Your task to perform on an android device: toggle show notifications on the lock screen Image 0: 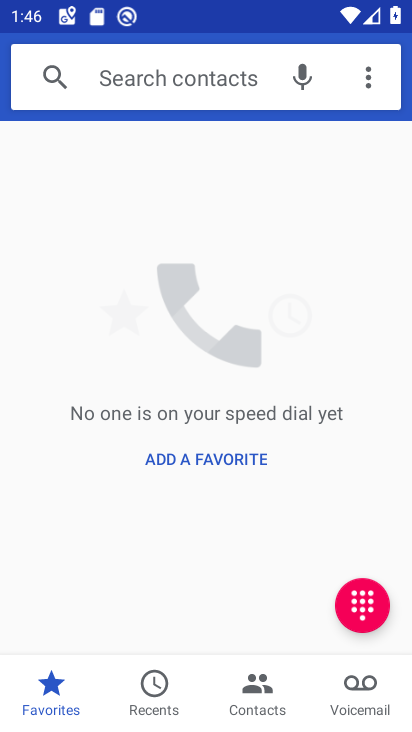
Step 0: press home button
Your task to perform on an android device: toggle show notifications on the lock screen Image 1: 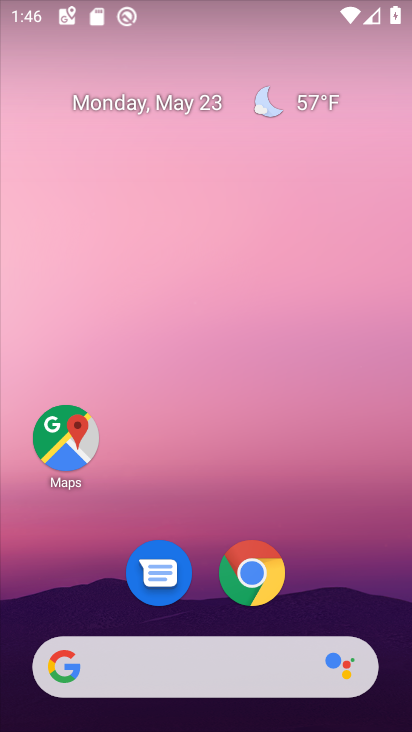
Step 1: drag from (338, 592) to (255, 0)
Your task to perform on an android device: toggle show notifications on the lock screen Image 2: 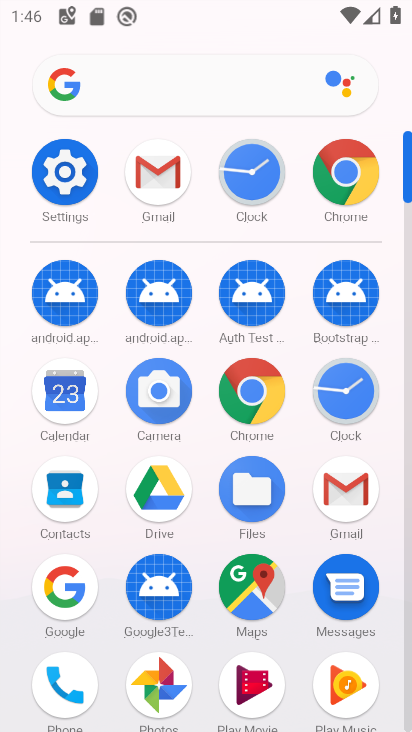
Step 2: click (75, 194)
Your task to perform on an android device: toggle show notifications on the lock screen Image 3: 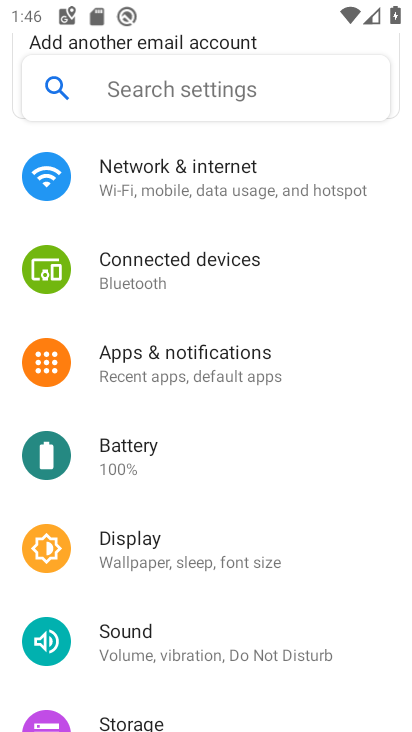
Step 3: drag from (213, 272) to (169, 502)
Your task to perform on an android device: toggle show notifications on the lock screen Image 4: 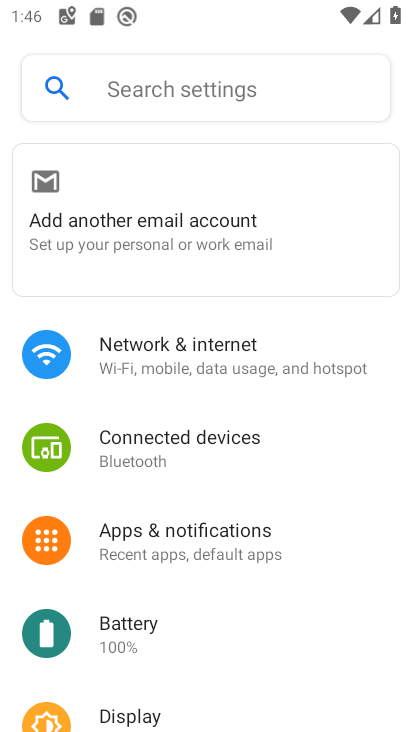
Step 4: drag from (251, 542) to (242, 299)
Your task to perform on an android device: toggle show notifications on the lock screen Image 5: 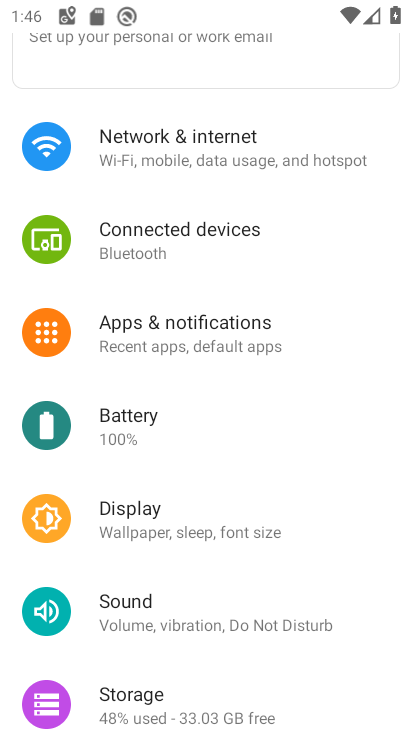
Step 5: drag from (217, 618) to (241, 434)
Your task to perform on an android device: toggle show notifications on the lock screen Image 6: 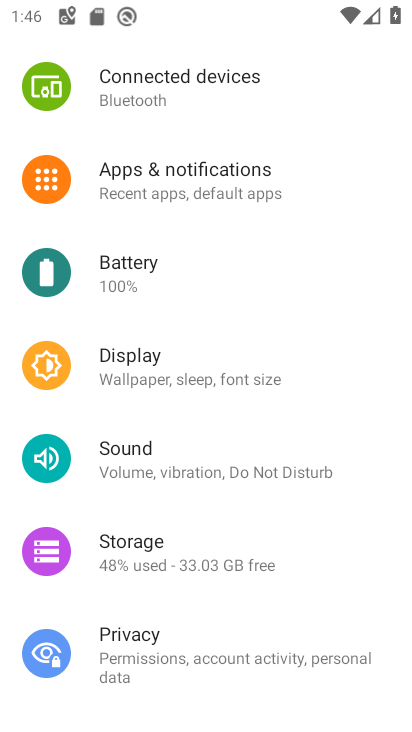
Step 6: drag from (257, 566) to (275, 294)
Your task to perform on an android device: toggle show notifications on the lock screen Image 7: 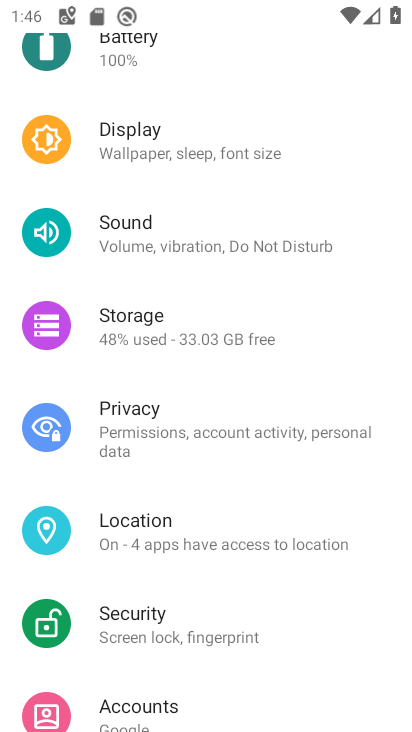
Step 7: drag from (175, 542) to (175, 223)
Your task to perform on an android device: toggle show notifications on the lock screen Image 8: 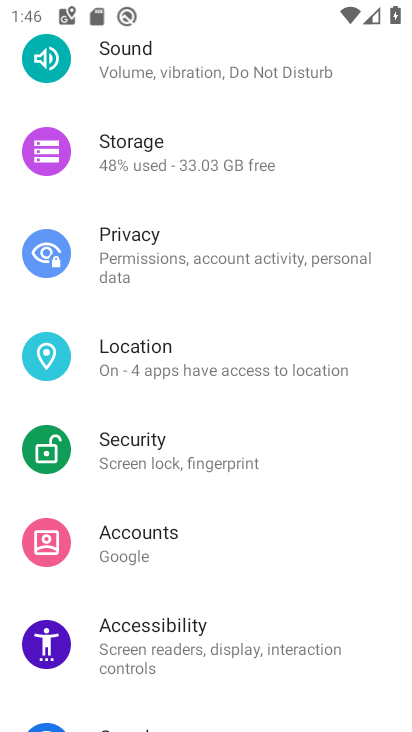
Step 8: drag from (101, 600) to (112, 195)
Your task to perform on an android device: toggle show notifications on the lock screen Image 9: 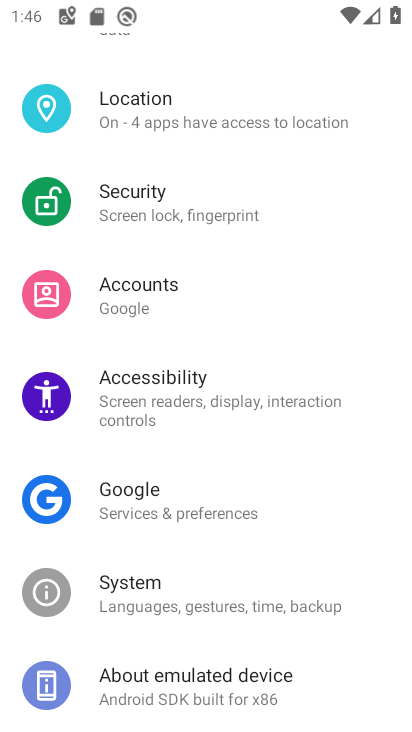
Step 9: drag from (161, 492) to (169, 150)
Your task to perform on an android device: toggle show notifications on the lock screen Image 10: 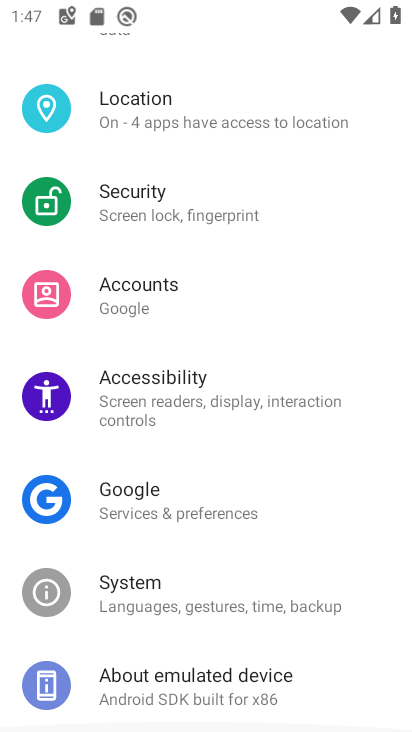
Step 10: drag from (171, 147) to (181, 674)
Your task to perform on an android device: toggle show notifications on the lock screen Image 11: 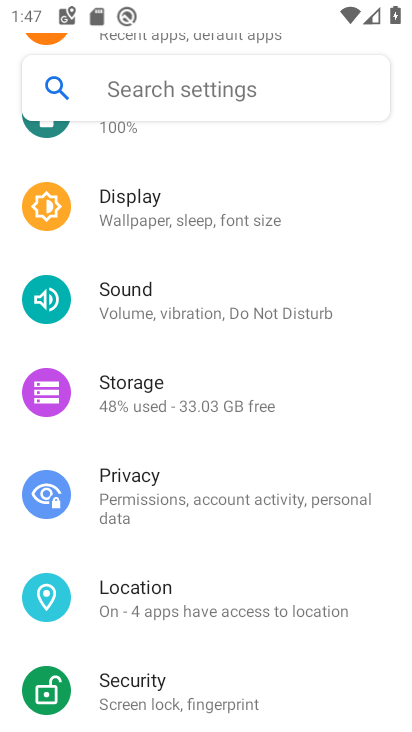
Step 11: click (182, 229)
Your task to perform on an android device: toggle show notifications on the lock screen Image 12: 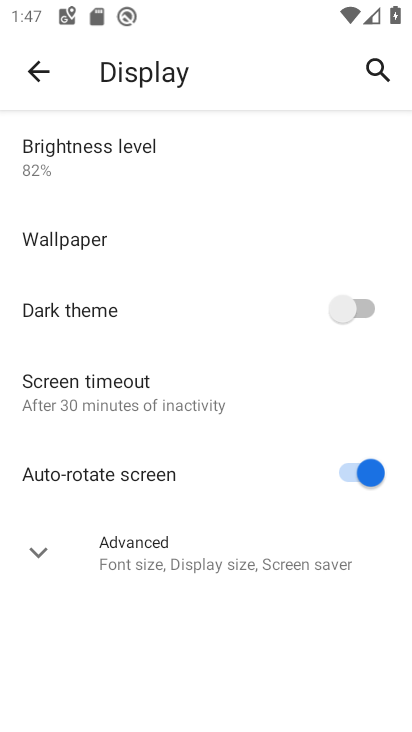
Step 12: click (58, 562)
Your task to perform on an android device: toggle show notifications on the lock screen Image 13: 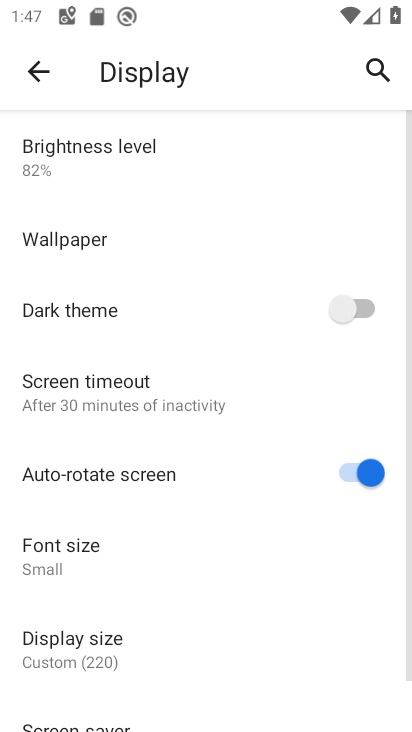
Step 13: drag from (222, 485) to (223, 240)
Your task to perform on an android device: toggle show notifications on the lock screen Image 14: 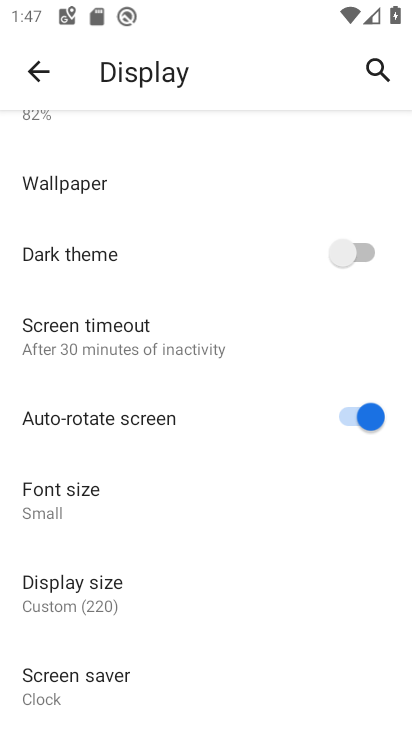
Step 14: drag from (179, 542) to (179, 339)
Your task to perform on an android device: toggle show notifications on the lock screen Image 15: 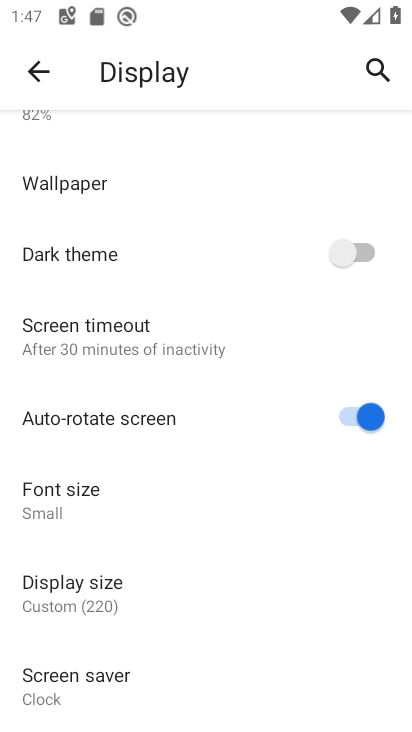
Step 15: press back button
Your task to perform on an android device: toggle show notifications on the lock screen Image 16: 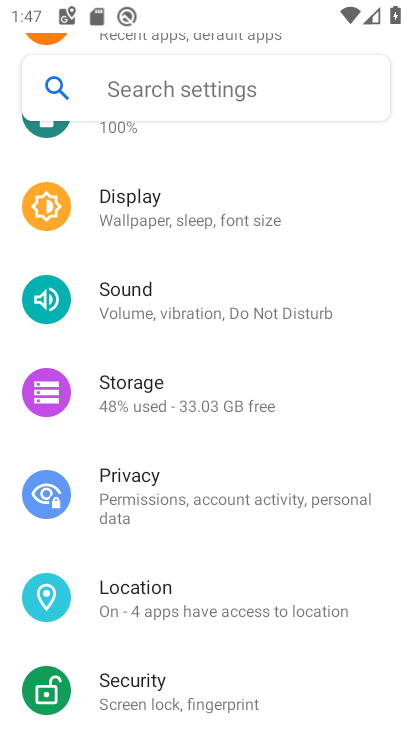
Step 16: drag from (238, 311) to (218, 656)
Your task to perform on an android device: toggle show notifications on the lock screen Image 17: 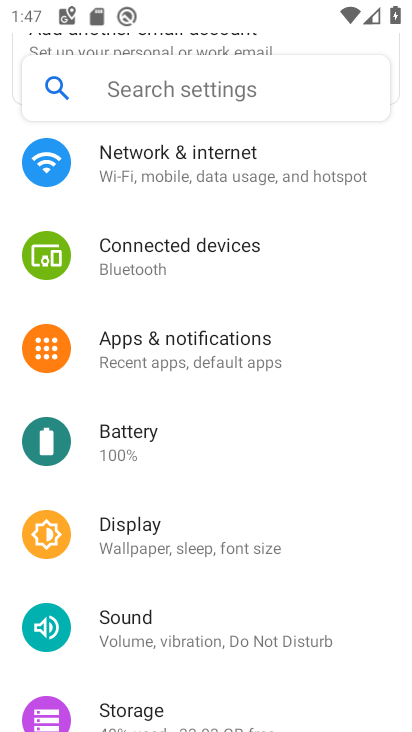
Step 17: click (136, 352)
Your task to perform on an android device: toggle show notifications on the lock screen Image 18: 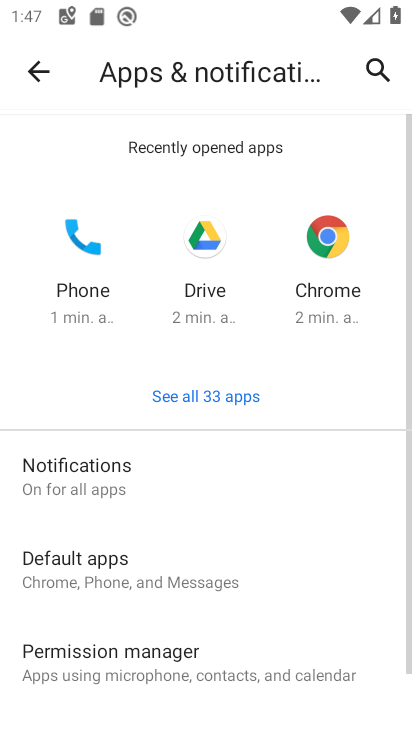
Step 18: drag from (214, 552) to (230, 125)
Your task to perform on an android device: toggle show notifications on the lock screen Image 19: 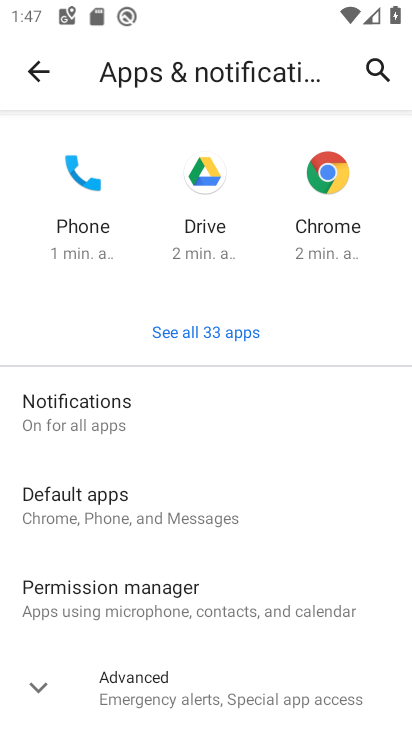
Step 19: click (198, 687)
Your task to perform on an android device: toggle show notifications on the lock screen Image 20: 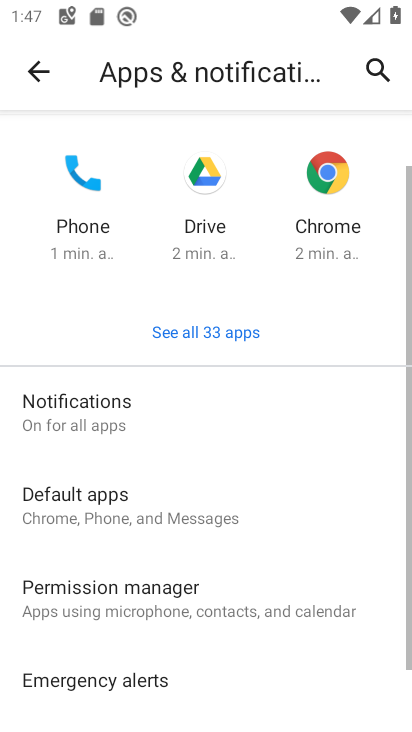
Step 20: drag from (201, 598) to (208, 230)
Your task to perform on an android device: toggle show notifications on the lock screen Image 21: 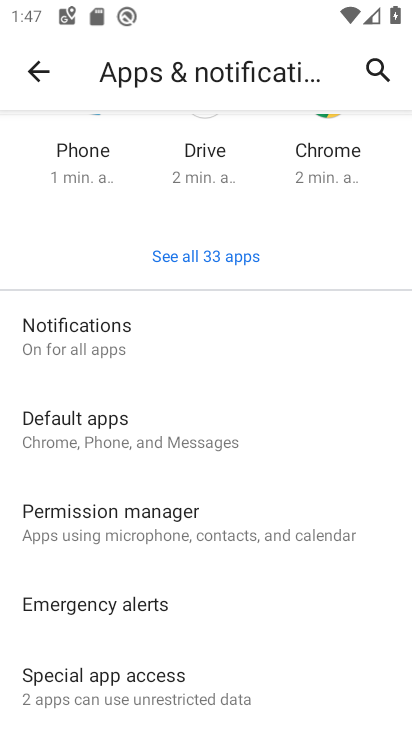
Step 21: drag from (239, 642) to (224, 289)
Your task to perform on an android device: toggle show notifications on the lock screen Image 22: 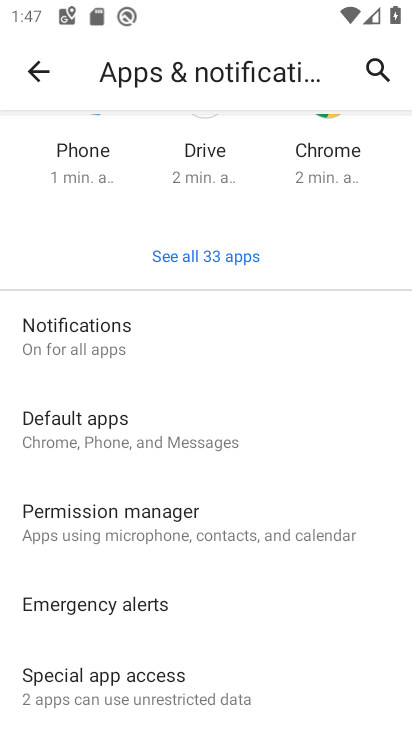
Step 22: press back button
Your task to perform on an android device: toggle show notifications on the lock screen Image 23: 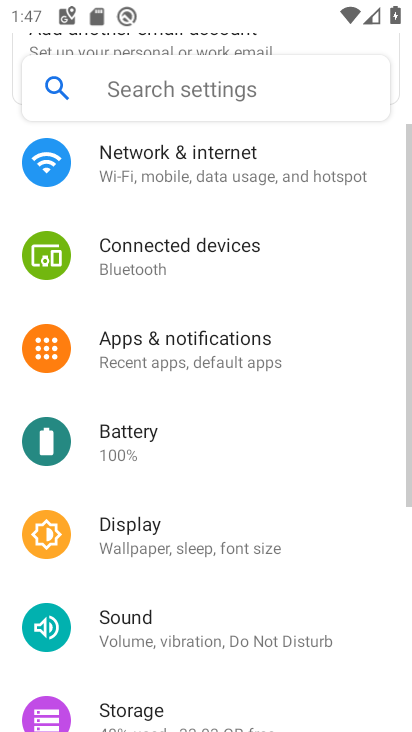
Step 23: drag from (205, 657) to (207, 289)
Your task to perform on an android device: toggle show notifications on the lock screen Image 24: 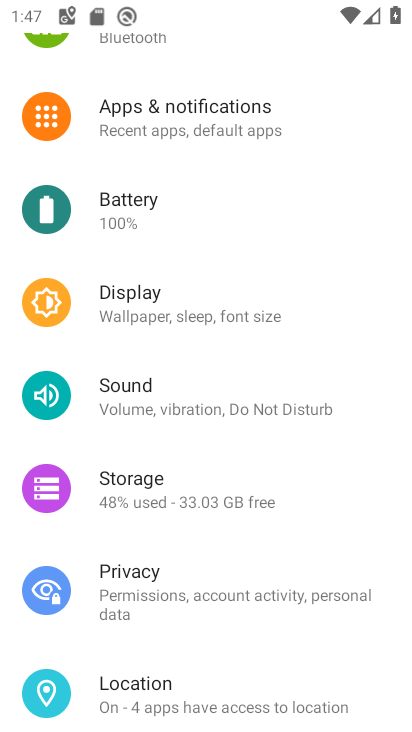
Step 24: drag from (119, 640) to (148, 200)
Your task to perform on an android device: toggle show notifications on the lock screen Image 25: 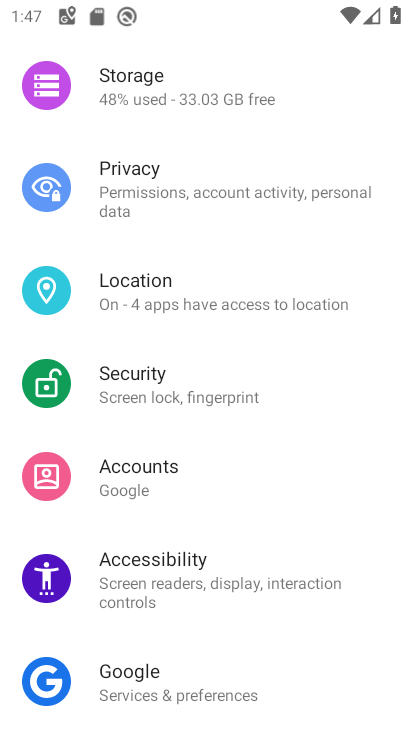
Step 25: drag from (78, 620) to (144, 244)
Your task to perform on an android device: toggle show notifications on the lock screen Image 26: 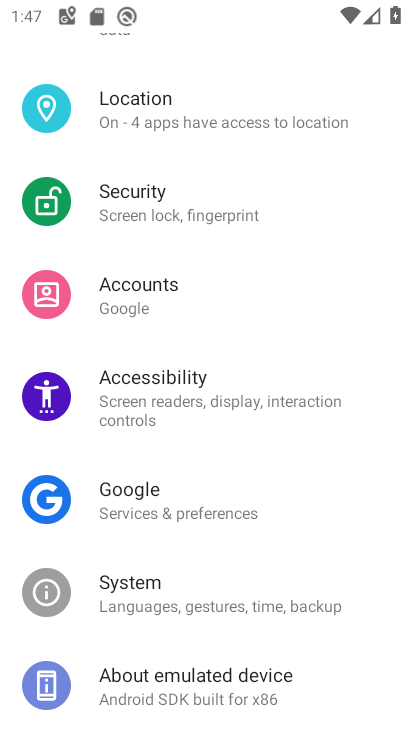
Step 26: click (270, 689)
Your task to perform on an android device: toggle show notifications on the lock screen Image 27: 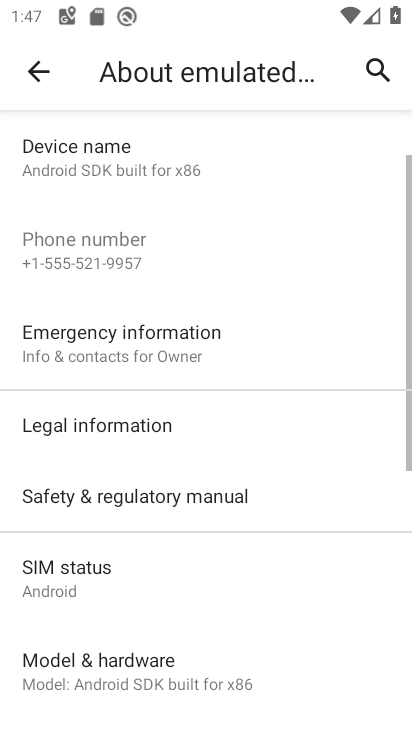
Step 27: drag from (155, 612) to (166, 249)
Your task to perform on an android device: toggle show notifications on the lock screen Image 28: 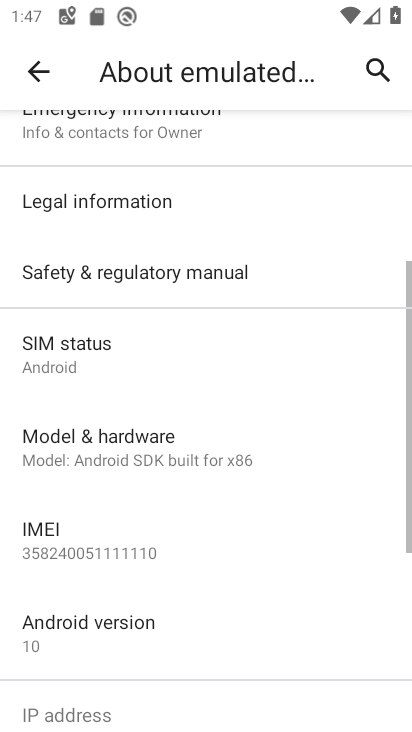
Step 28: drag from (93, 533) to (140, 215)
Your task to perform on an android device: toggle show notifications on the lock screen Image 29: 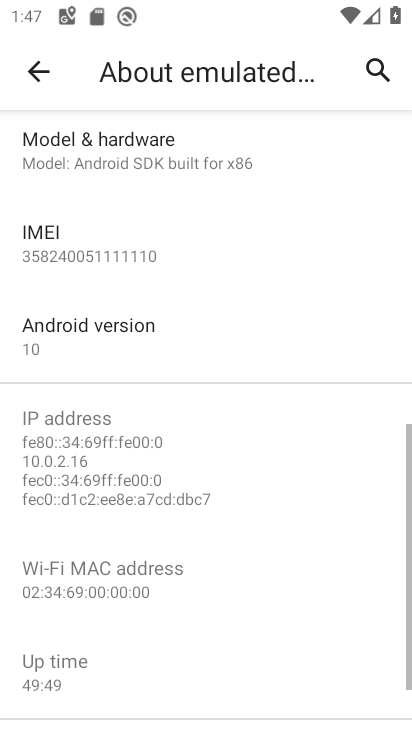
Step 29: drag from (181, 536) to (181, 41)
Your task to perform on an android device: toggle show notifications on the lock screen Image 30: 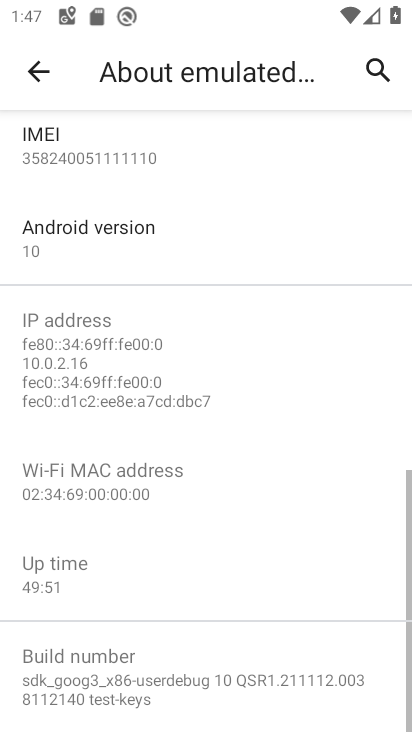
Step 30: drag from (255, 242) to (232, 683)
Your task to perform on an android device: toggle show notifications on the lock screen Image 31: 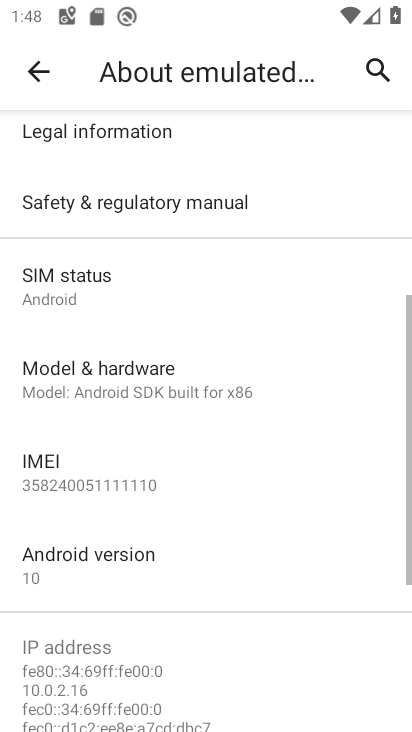
Step 31: drag from (217, 353) to (243, 685)
Your task to perform on an android device: toggle show notifications on the lock screen Image 32: 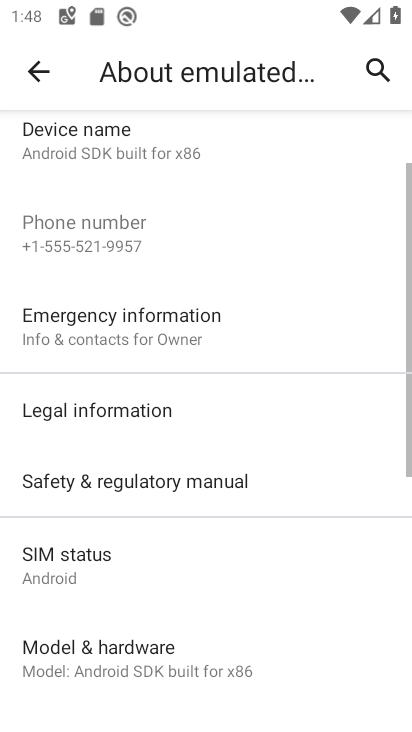
Step 32: drag from (234, 320) to (189, 703)
Your task to perform on an android device: toggle show notifications on the lock screen Image 33: 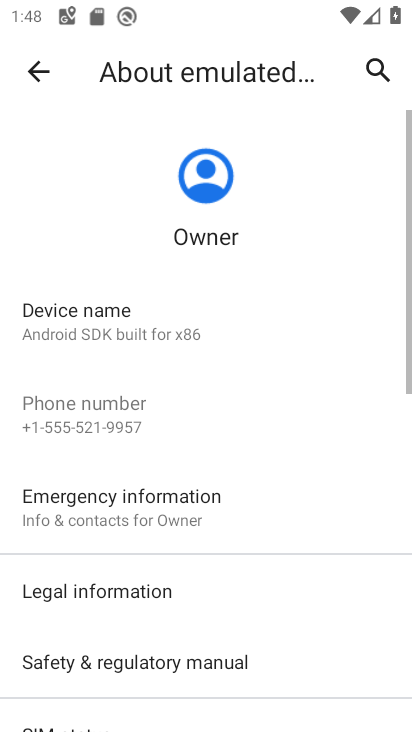
Step 33: press back button
Your task to perform on an android device: toggle show notifications on the lock screen Image 34: 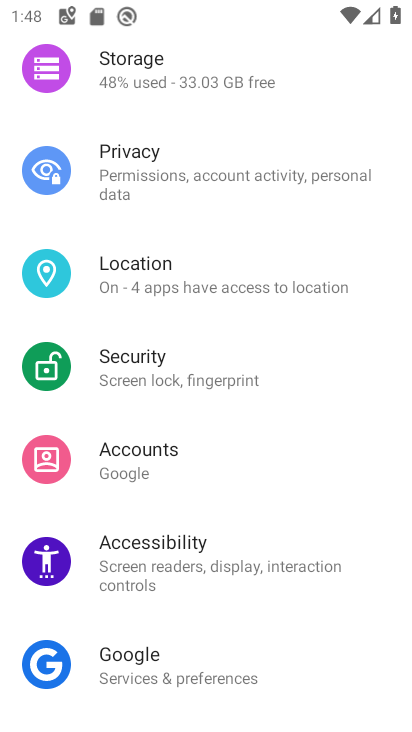
Step 34: drag from (227, 270) to (103, 634)
Your task to perform on an android device: toggle show notifications on the lock screen Image 35: 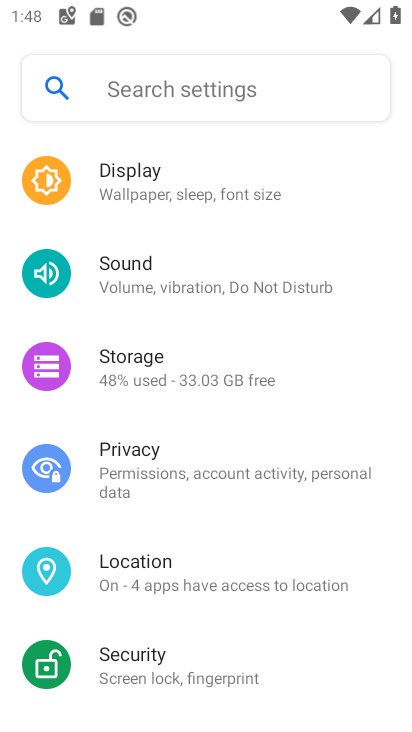
Step 35: drag from (120, 191) to (172, 549)
Your task to perform on an android device: toggle show notifications on the lock screen Image 36: 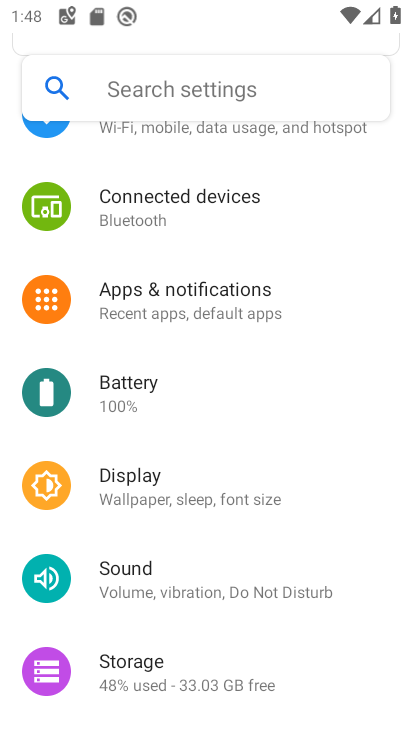
Step 36: drag from (212, 252) to (250, 669)
Your task to perform on an android device: toggle show notifications on the lock screen Image 37: 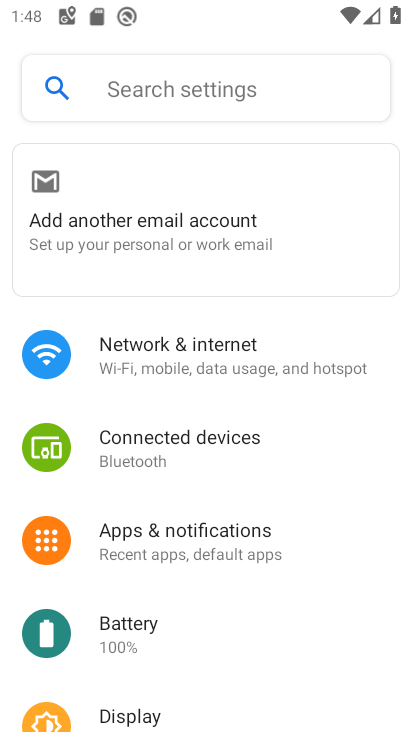
Step 37: drag from (252, 580) to (254, 203)
Your task to perform on an android device: toggle show notifications on the lock screen Image 38: 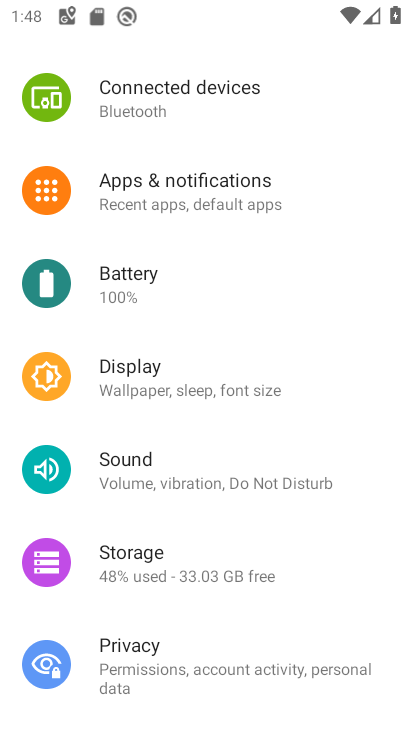
Step 38: click (221, 384)
Your task to perform on an android device: toggle show notifications on the lock screen Image 39: 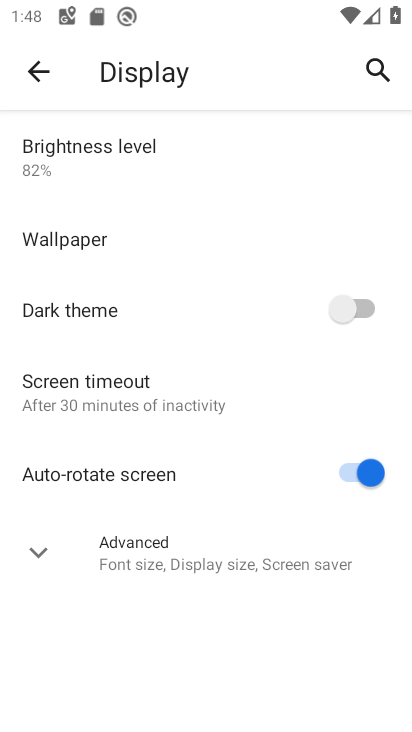
Step 39: press back button
Your task to perform on an android device: toggle show notifications on the lock screen Image 40: 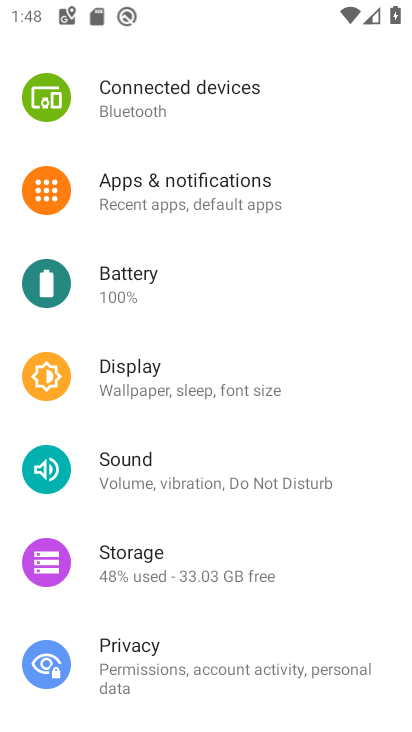
Step 40: click (99, 233)
Your task to perform on an android device: toggle show notifications on the lock screen Image 41: 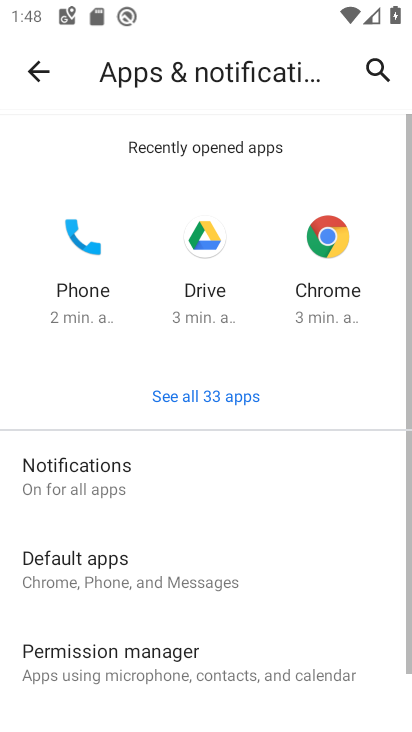
Step 41: click (132, 179)
Your task to perform on an android device: toggle show notifications on the lock screen Image 42: 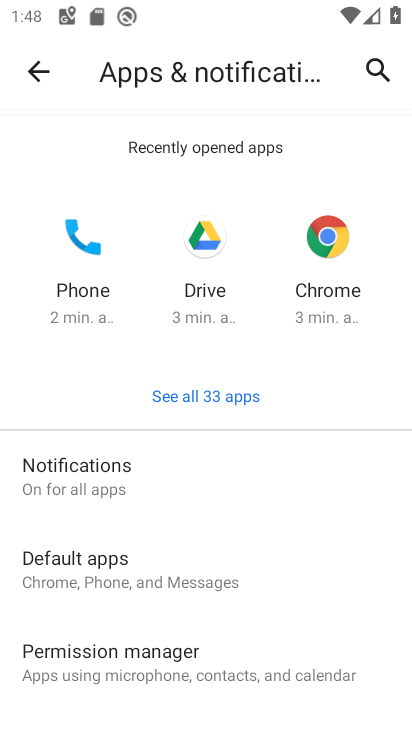
Step 42: drag from (264, 473) to (243, 129)
Your task to perform on an android device: toggle show notifications on the lock screen Image 43: 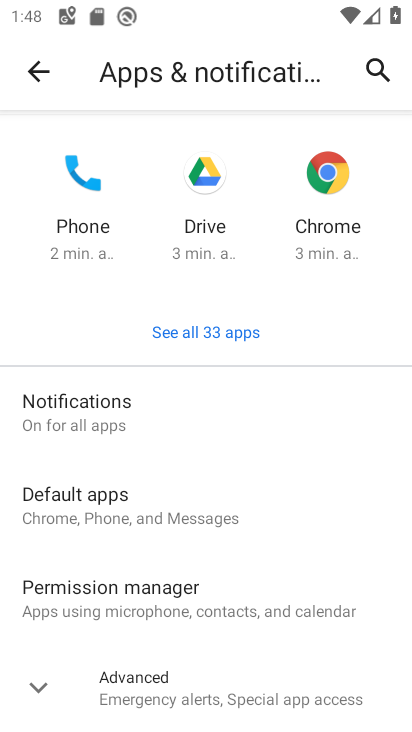
Step 43: click (194, 674)
Your task to perform on an android device: toggle show notifications on the lock screen Image 44: 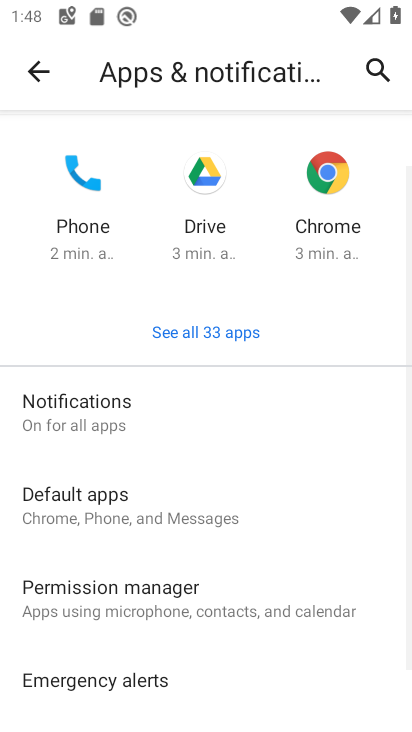
Step 44: drag from (170, 672) to (169, 152)
Your task to perform on an android device: toggle show notifications on the lock screen Image 45: 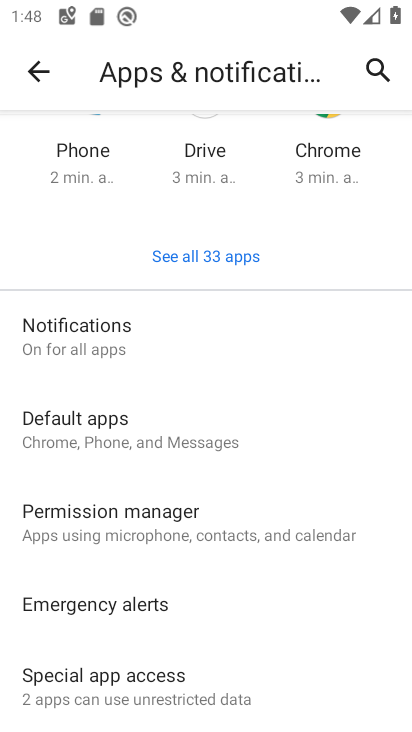
Step 45: click (135, 341)
Your task to perform on an android device: toggle show notifications on the lock screen Image 46: 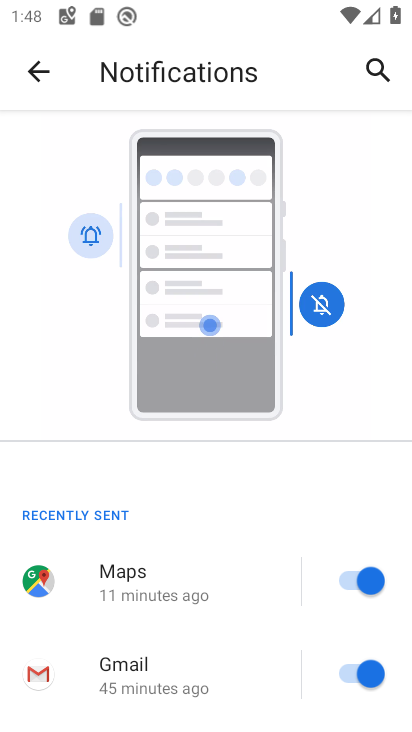
Step 46: drag from (243, 523) to (247, 114)
Your task to perform on an android device: toggle show notifications on the lock screen Image 47: 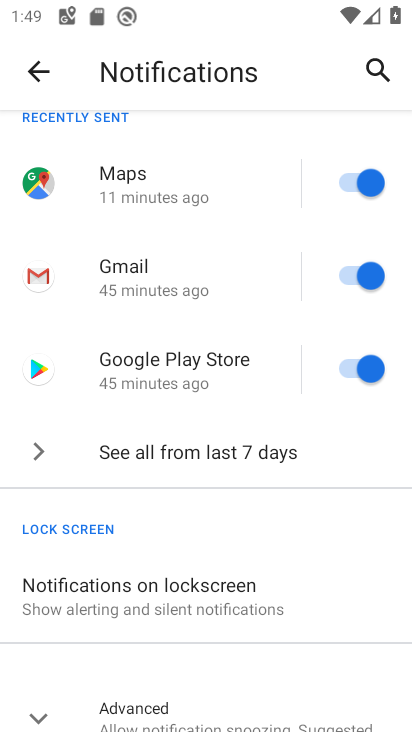
Step 47: drag from (188, 607) to (187, 132)
Your task to perform on an android device: toggle show notifications on the lock screen Image 48: 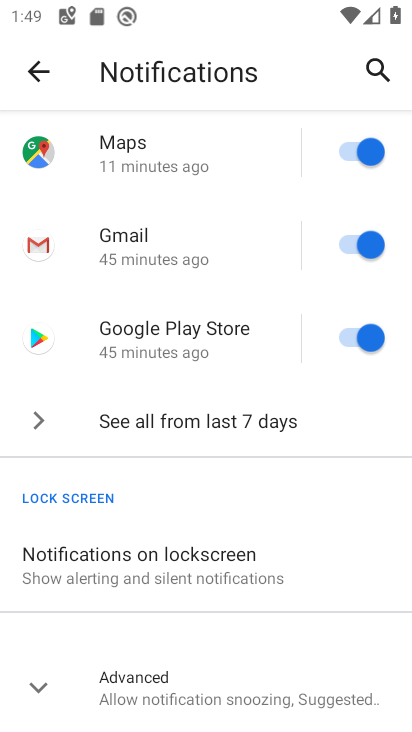
Step 48: click (137, 576)
Your task to perform on an android device: toggle show notifications on the lock screen Image 49: 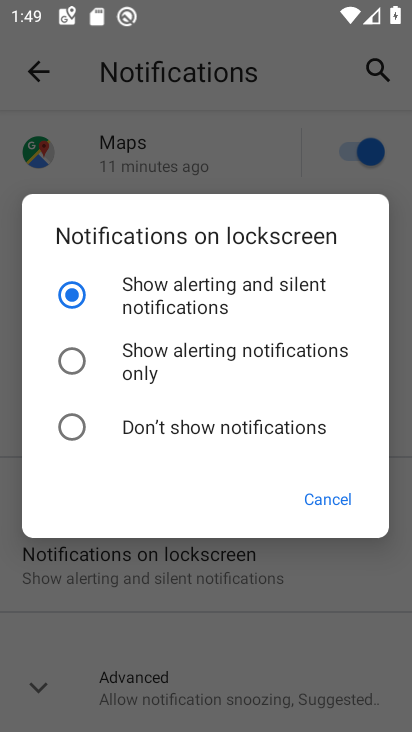
Step 49: click (73, 365)
Your task to perform on an android device: toggle show notifications on the lock screen Image 50: 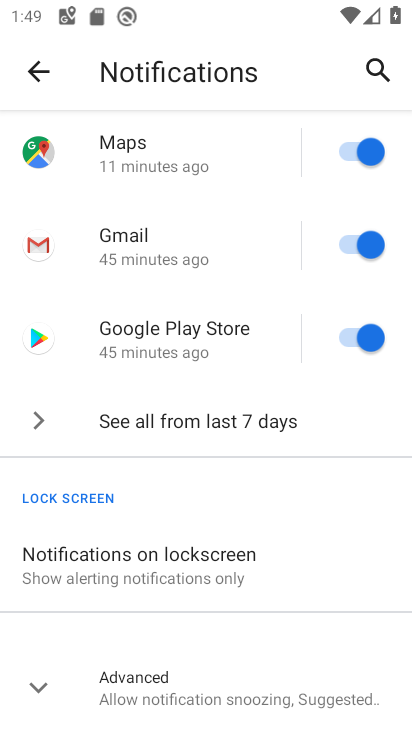
Step 50: task complete